Your task to perform on an android device: remove spam from my inbox in the gmail app Image 0: 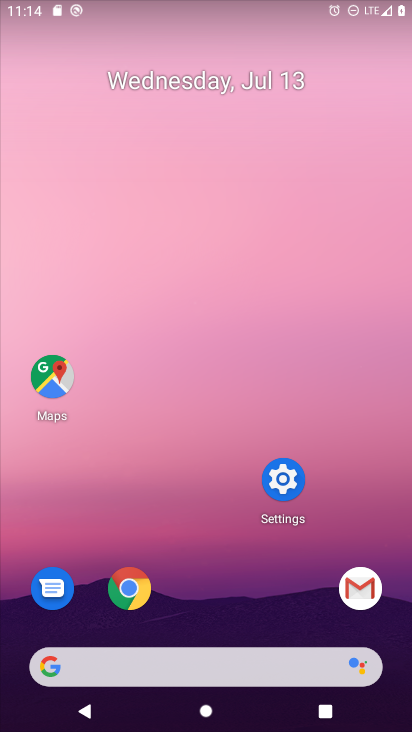
Step 0: click (345, 603)
Your task to perform on an android device: remove spam from my inbox in the gmail app Image 1: 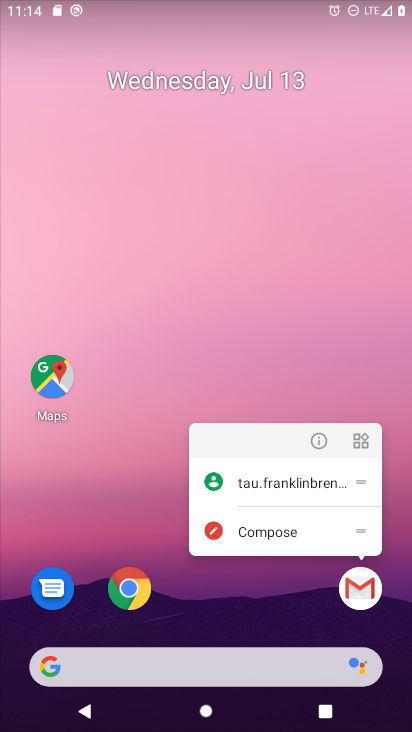
Step 1: click (367, 584)
Your task to perform on an android device: remove spam from my inbox in the gmail app Image 2: 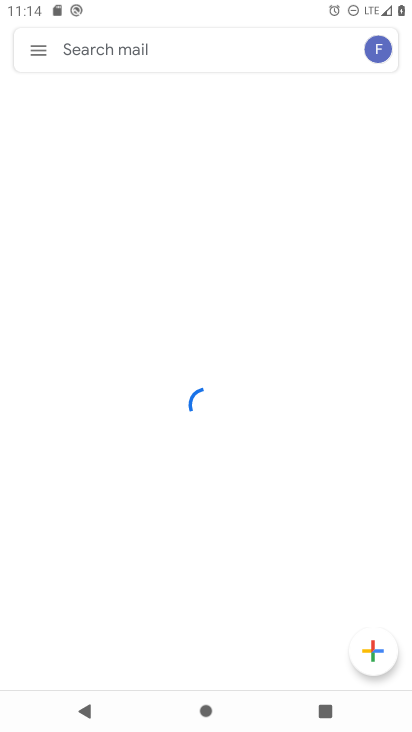
Step 2: click (36, 54)
Your task to perform on an android device: remove spam from my inbox in the gmail app Image 3: 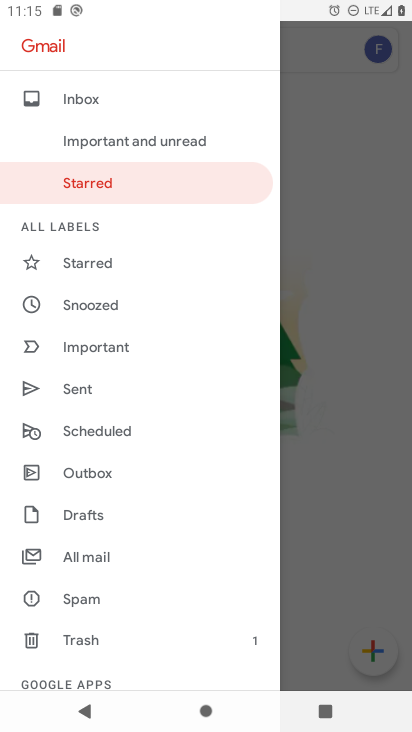
Step 3: click (95, 600)
Your task to perform on an android device: remove spam from my inbox in the gmail app Image 4: 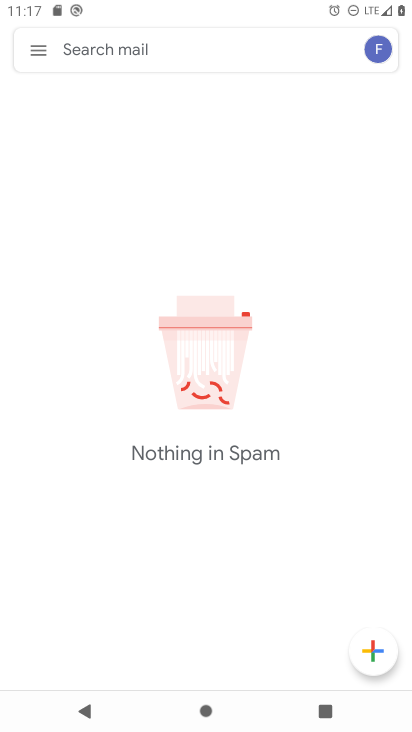
Step 4: task complete